Your task to perform on an android device: Open display settings Image 0: 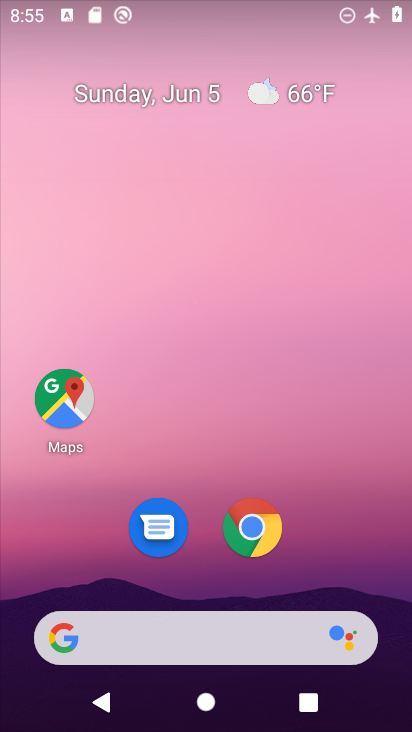
Step 0: drag from (322, 566) to (326, 29)
Your task to perform on an android device: Open display settings Image 1: 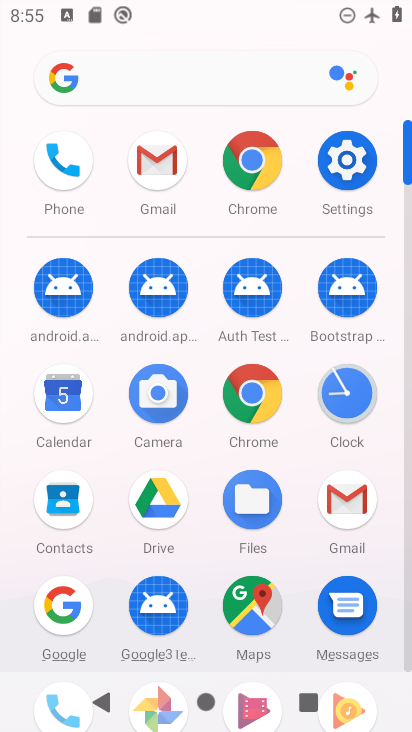
Step 1: click (336, 169)
Your task to perform on an android device: Open display settings Image 2: 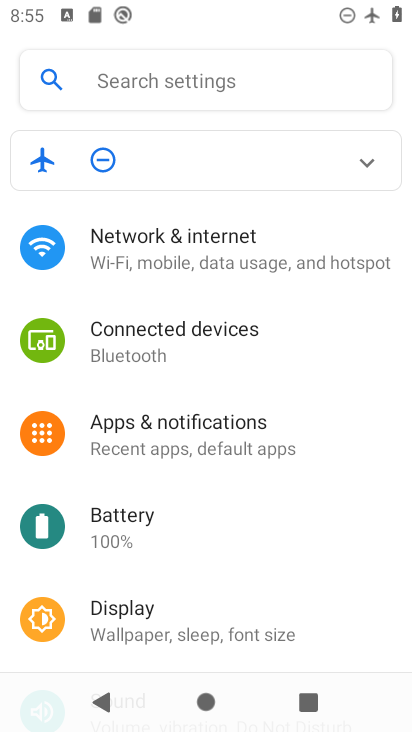
Step 2: click (131, 639)
Your task to perform on an android device: Open display settings Image 3: 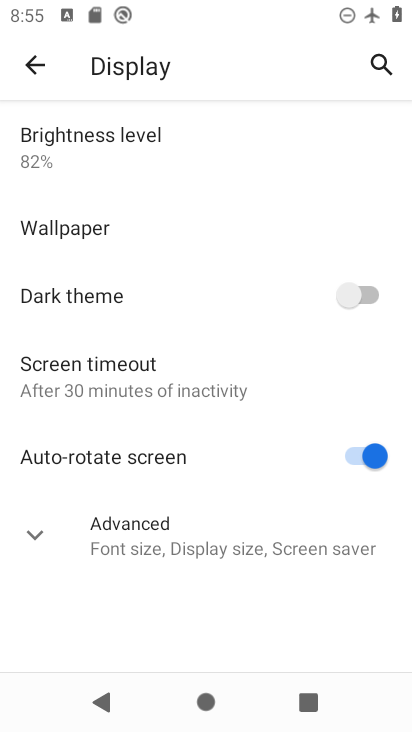
Step 3: task complete